Your task to perform on an android device: install app "Pluto TV - Live TV and Movies" Image 0: 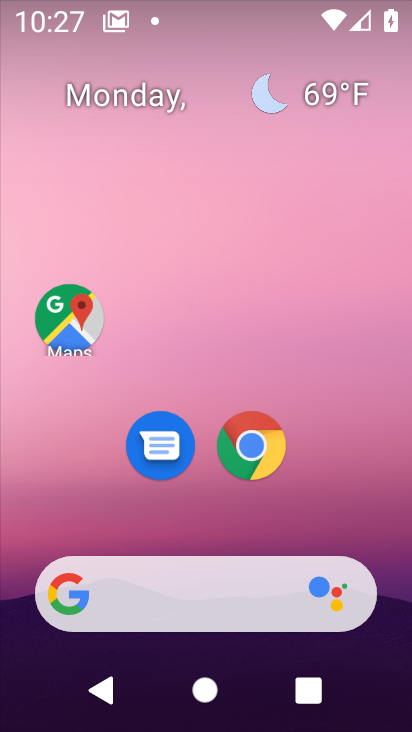
Step 0: drag from (182, 384) to (238, 20)
Your task to perform on an android device: install app "Pluto TV - Live TV and Movies" Image 1: 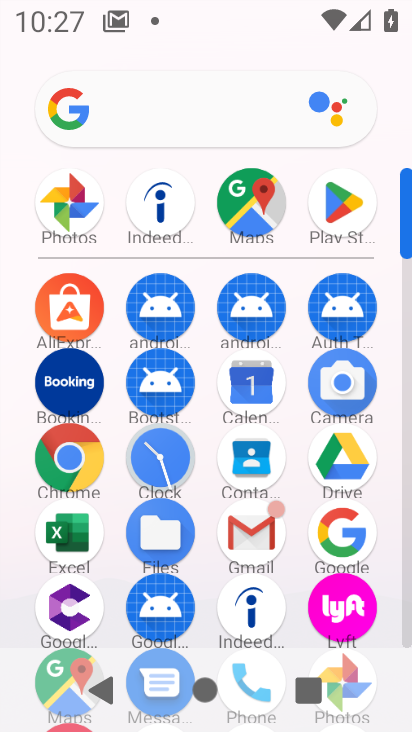
Step 1: click (343, 175)
Your task to perform on an android device: install app "Pluto TV - Live TV and Movies" Image 2: 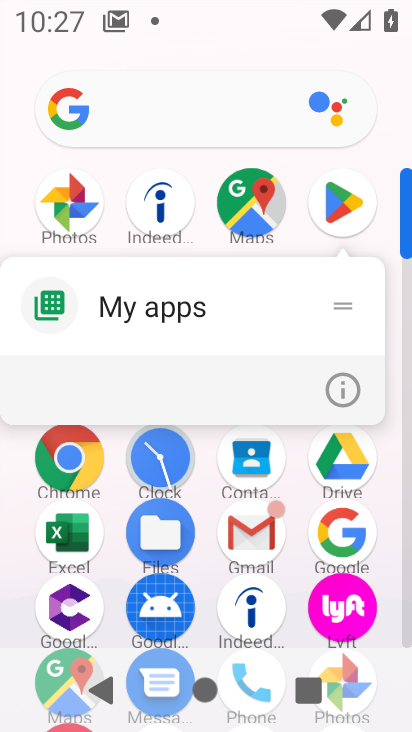
Step 2: click (358, 184)
Your task to perform on an android device: install app "Pluto TV - Live TV and Movies" Image 3: 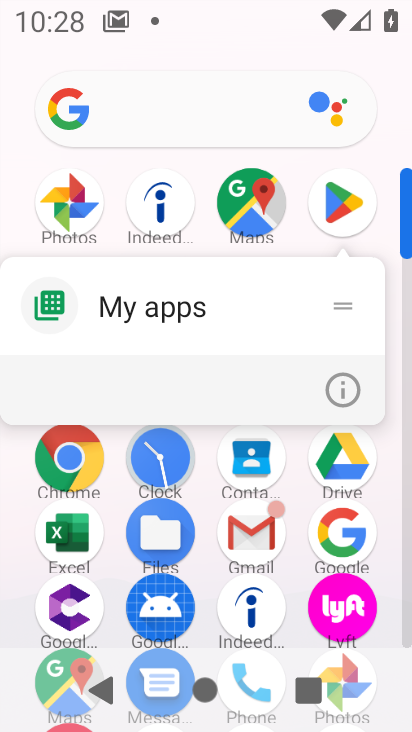
Step 3: click (337, 216)
Your task to perform on an android device: install app "Pluto TV - Live TV and Movies" Image 4: 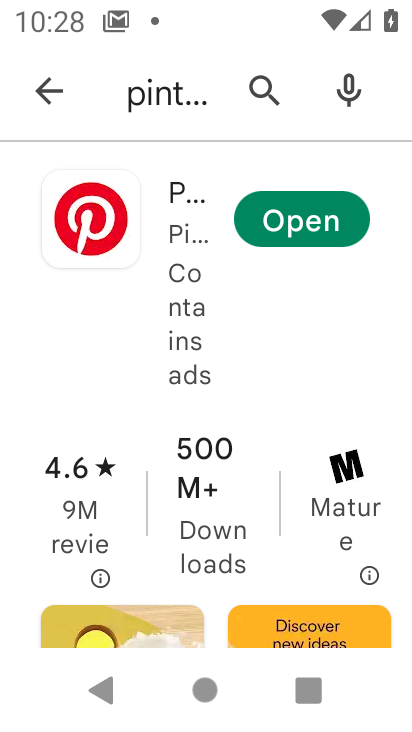
Step 4: click (46, 95)
Your task to perform on an android device: install app "Pluto TV - Live TV and Movies" Image 5: 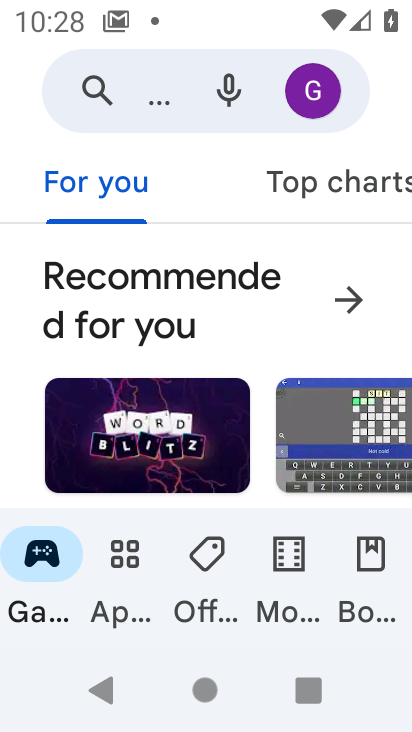
Step 5: click (77, 88)
Your task to perform on an android device: install app "Pluto TV - Live TV and Movies" Image 6: 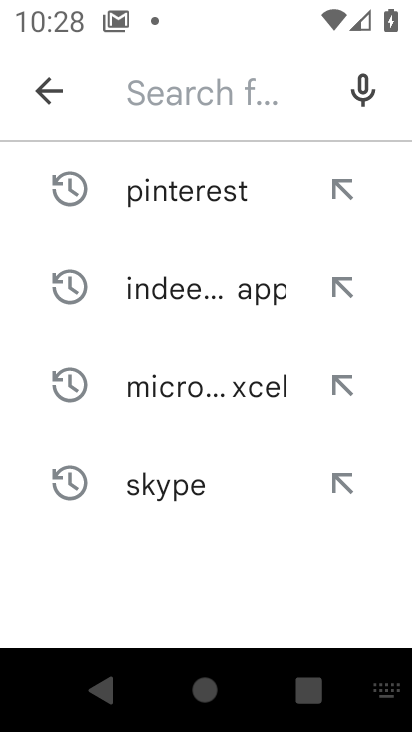
Step 6: type "Pluto TV - Live TV and Movies"
Your task to perform on an android device: install app "Pluto TV - Live TV and Movies" Image 7: 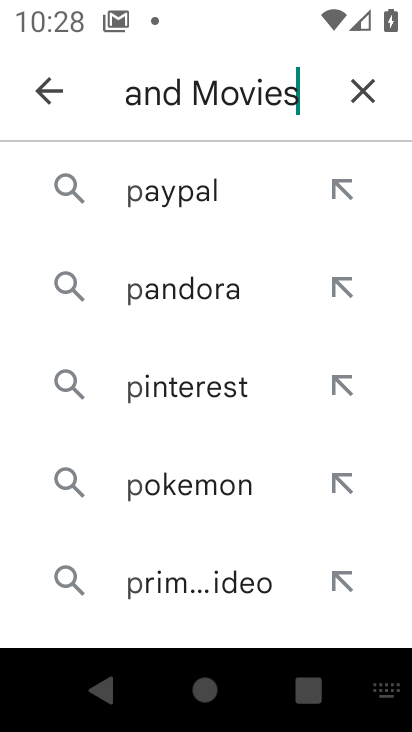
Step 7: type ""
Your task to perform on an android device: install app "Pluto TV - Live TV and Movies" Image 8: 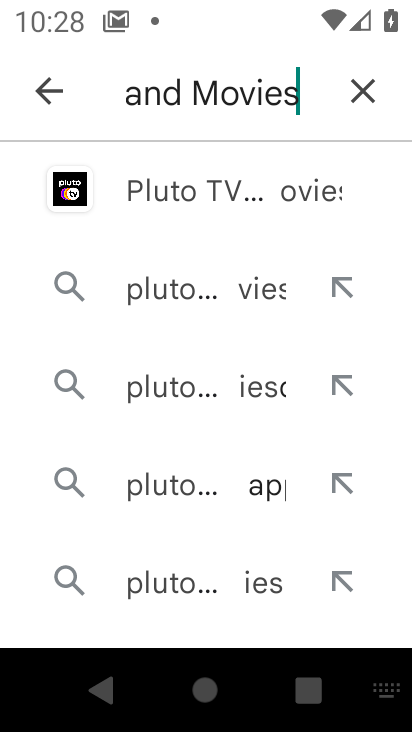
Step 8: click (310, 200)
Your task to perform on an android device: install app "Pluto TV - Live TV and Movies" Image 9: 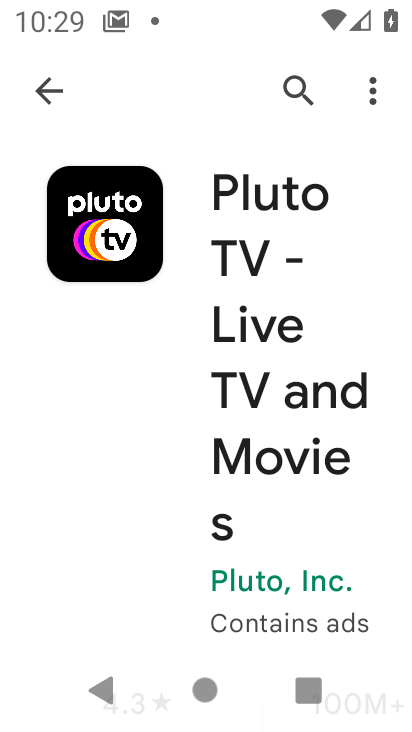
Step 9: drag from (182, 535) to (168, 202)
Your task to perform on an android device: install app "Pluto TV - Live TV and Movies" Image 10: 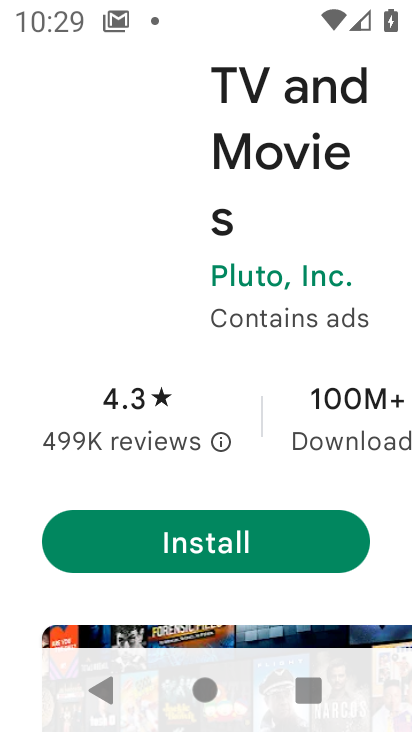
Step 10: click (174, 571)
Your task to perform on an android device: install app "Pluto TV - Live TV and Movies" Image 11: 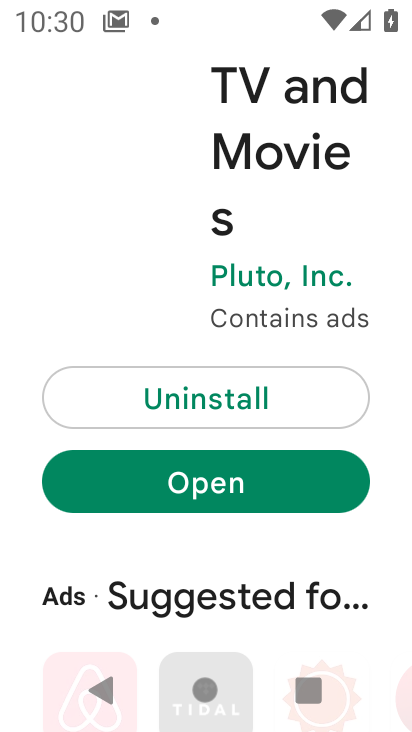
Step 11: task complete